Your task to perform on an android device: check android version Image 0: 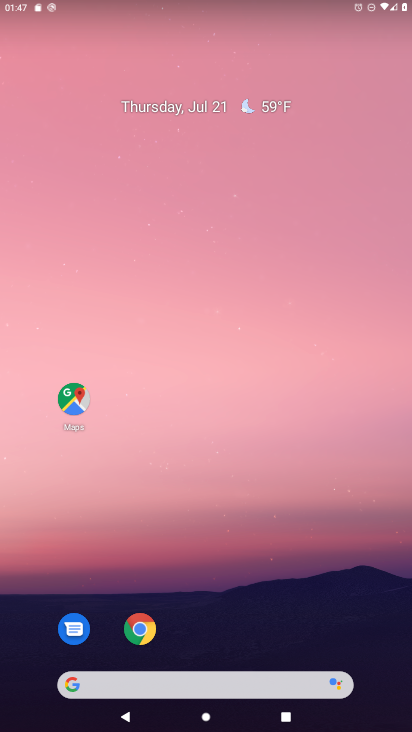
Step 0: drag from (383, 677) to (362, 5)
Your task to perform on an android device: check android version Image 1: 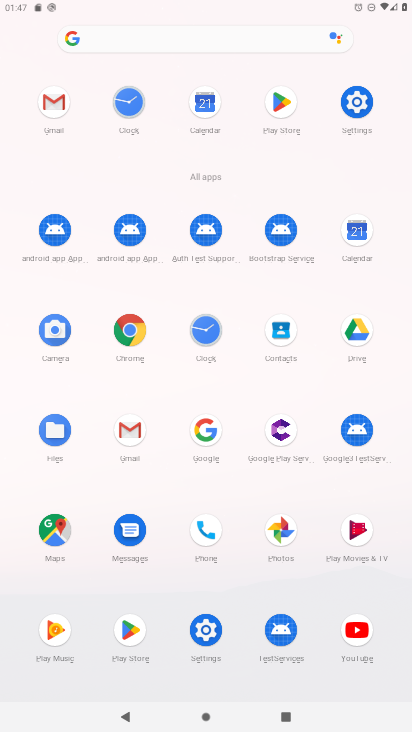
Step 1: click (204, 630)
Your task to perform on an android device: check android version Image 2: 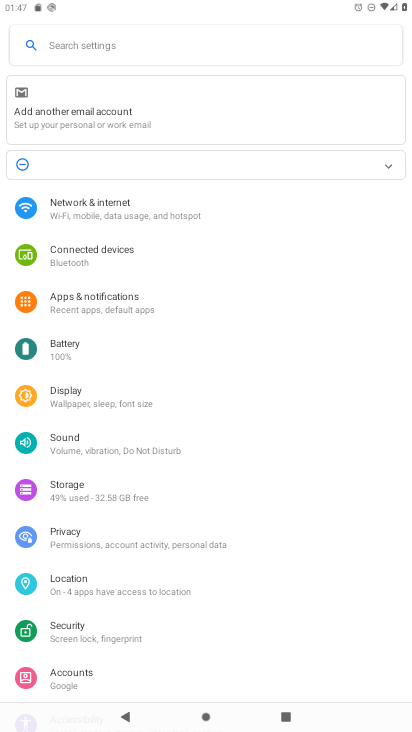
Step 2: drag from (236, 652) to (276, 291)
Your task to perform on an android device: check android version Image 3: 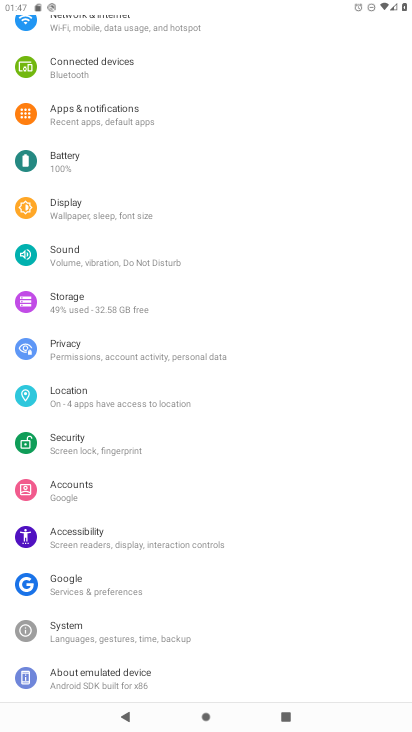
Step 3: click (78, 675)
Your task to perform on an android device: check android version Image 4: 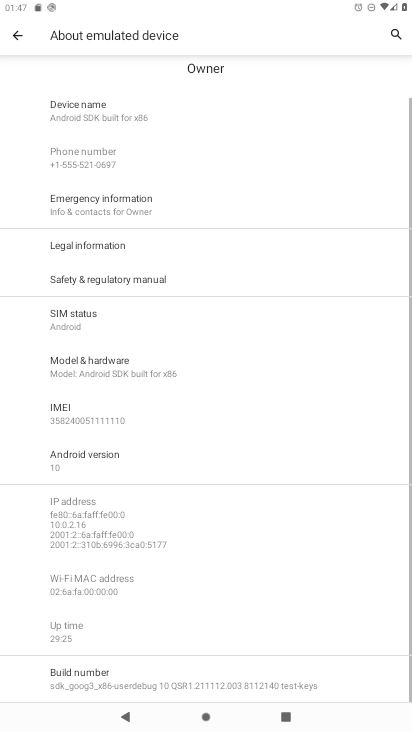
Step 4: click (74, 463)
Your task to perform on an android device: check android version Image 5: 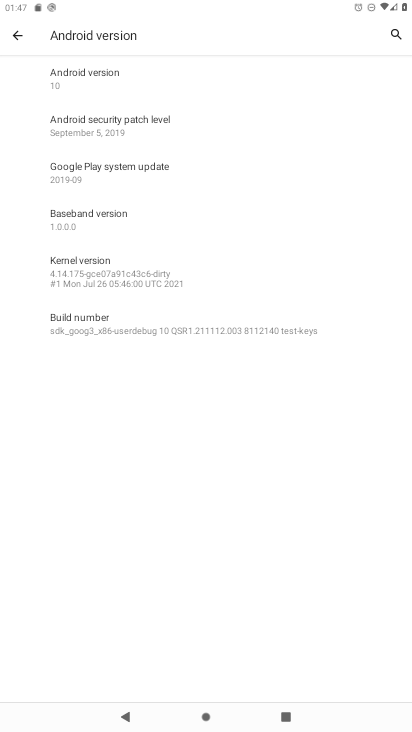
Step 5: click (81, 68)
Your task to perform on an android device: check android version Image 6: 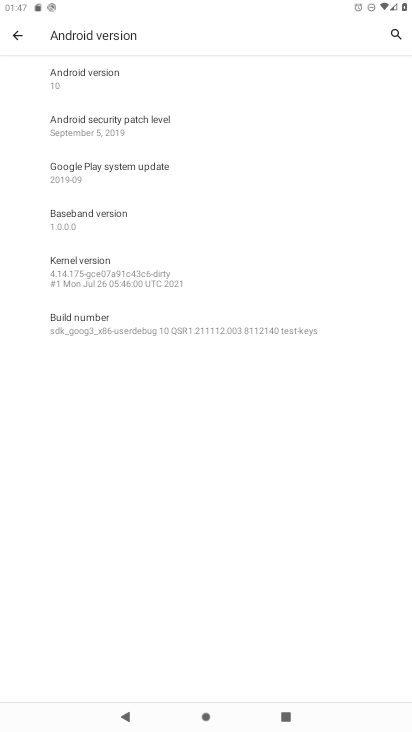
Step 6: task complete